Your task to perform on an android device: turn off sleep mode Image 0: 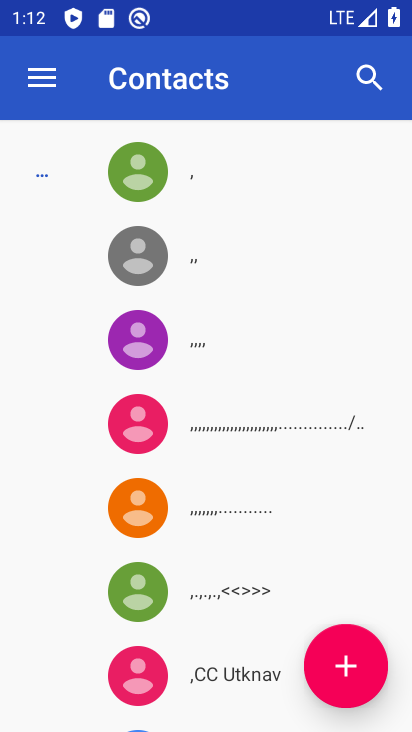
Step 0: press home button
Your task to perform on an android device: turn off sleep mode Image 1: 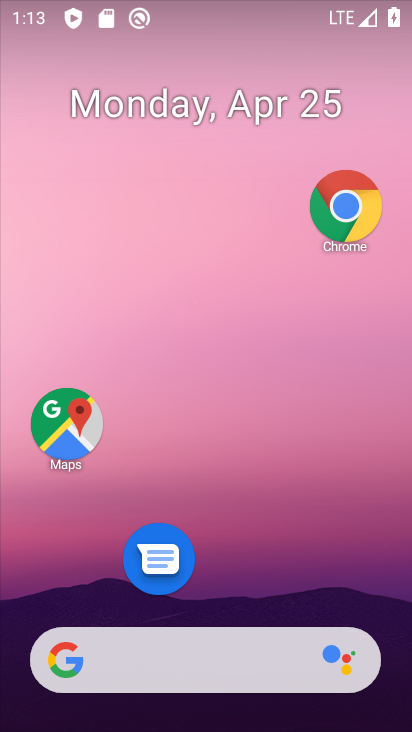
Step 1: drag from (179, 611) to (283, 57)
Your task to perform on an android device: turn off sleep mode Image 2: 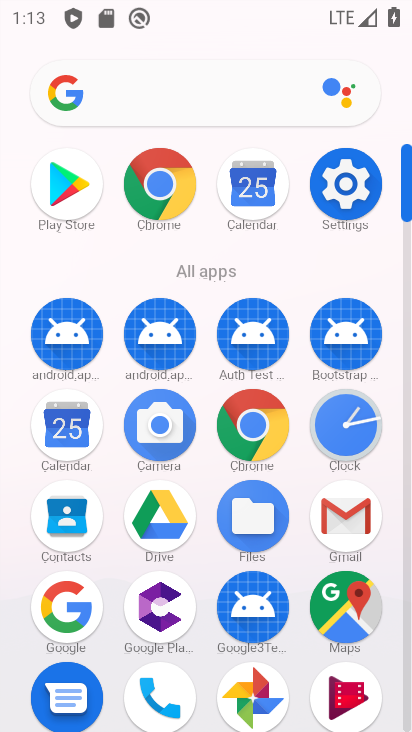
Step 2: click (346, 183)
Your task to perform on an android device: turn off sleep mode Image 3: 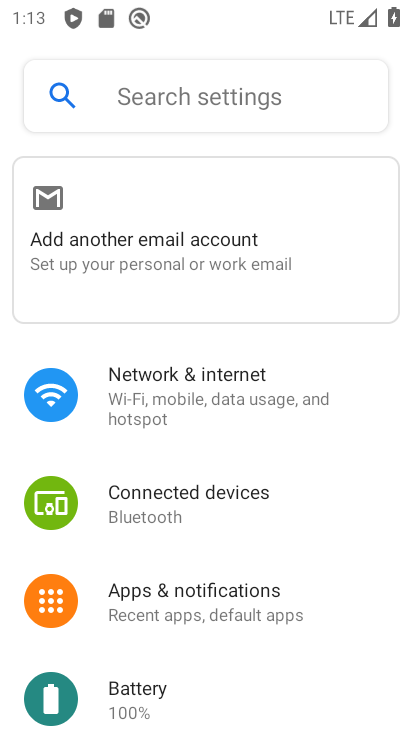
Step 3: click (159, 105)
Your task to perform on an android device: turn off sleep mode Image 4: 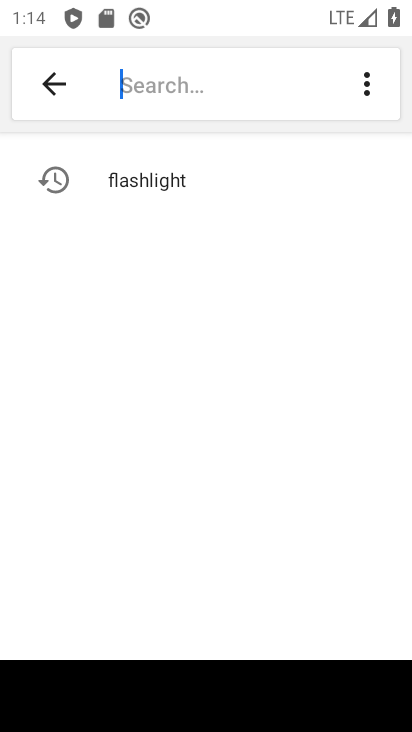
Step 4: type "sleep  mode"
Your task to perform on an android device: turn off sleep mode Image 5: 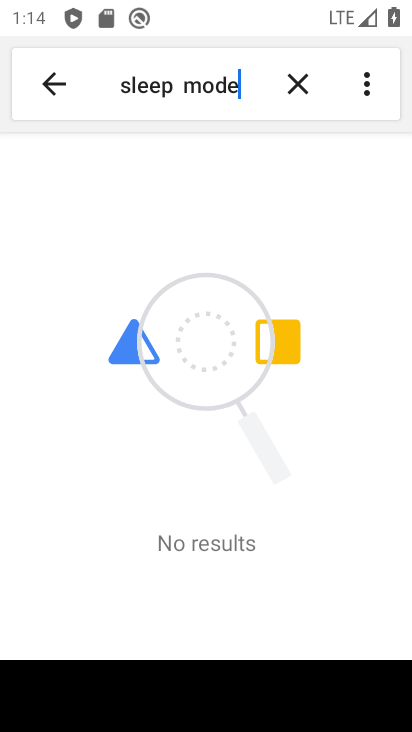
Step 5: task complete